Your task to perform on an android device: change keyboard looks Image 0: 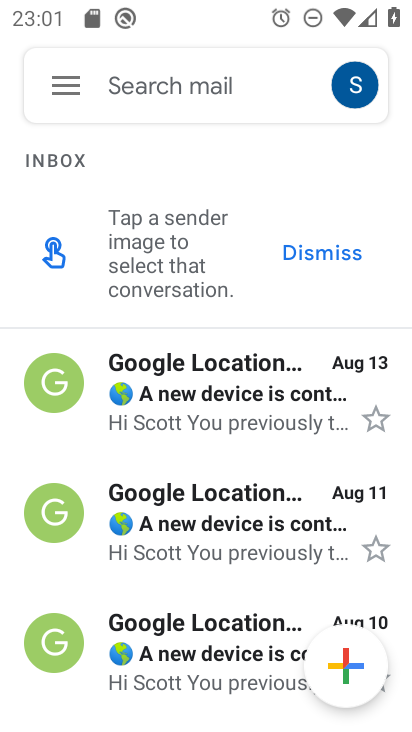
Step 0: press home button
Your task to perform on an android device: change keyboard looks Image 1: 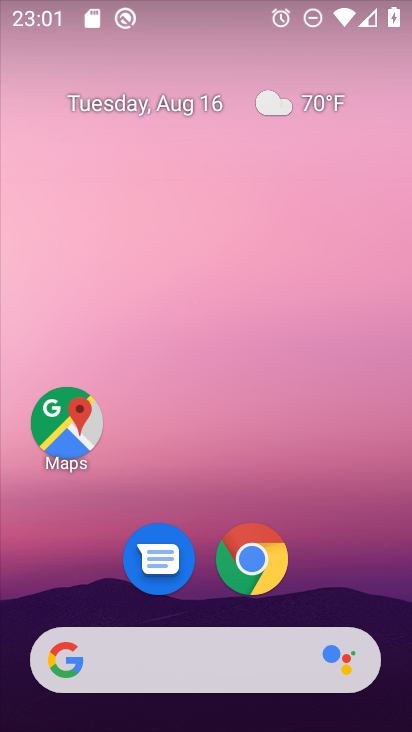
Step 1: drag from (200, 679) to (151, 130)
Your task to perform on an android device: change keyboard looks Image 2: 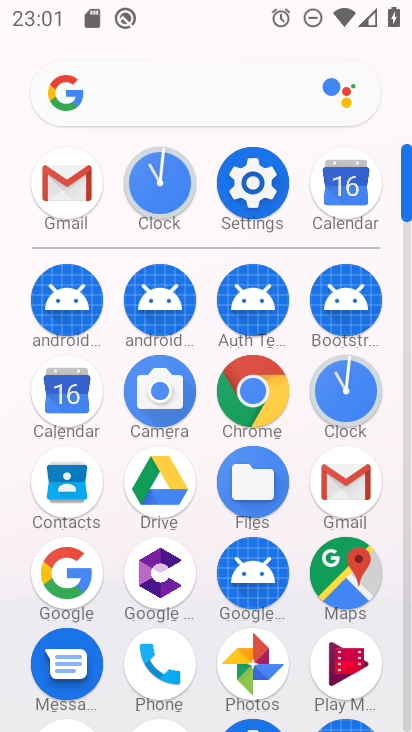
Step 2: click (250, 183)
Your task to perform on an android device: change keyboard looks Image 3: 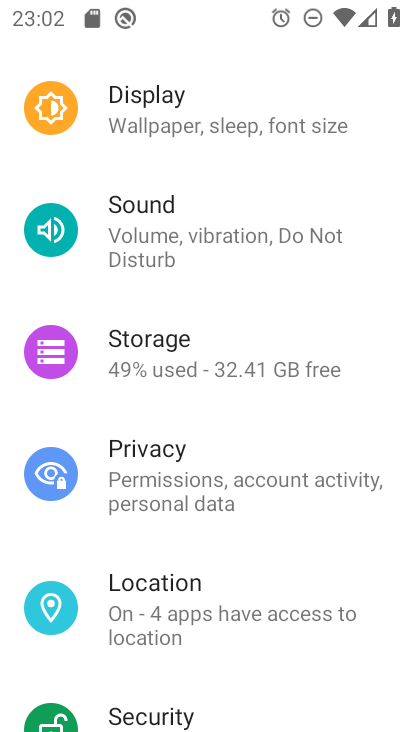
Step 3: drag from (153, 534) to (231, 425)
Your task to perform on an android device: change keyboard looks Image 4: 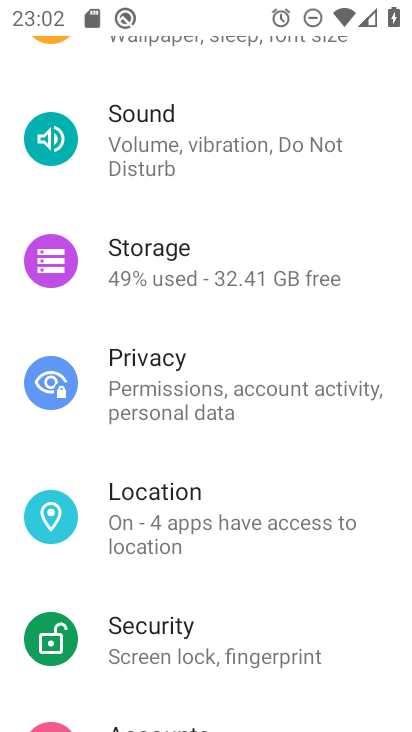
Step 4: drag from (176, 590) to (248, 479)
Your task to perform on an android device: change keyboard looks Image 5: 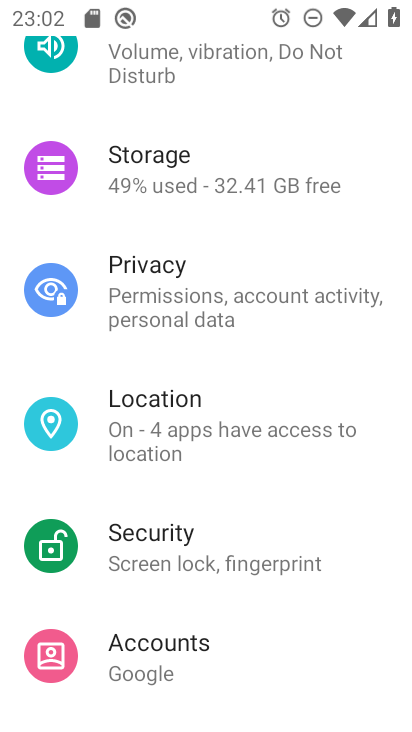
Step 5: drag from (151, 582) to (218, 462)
Your task to perform on an android device: change keyboard looks Image 6: 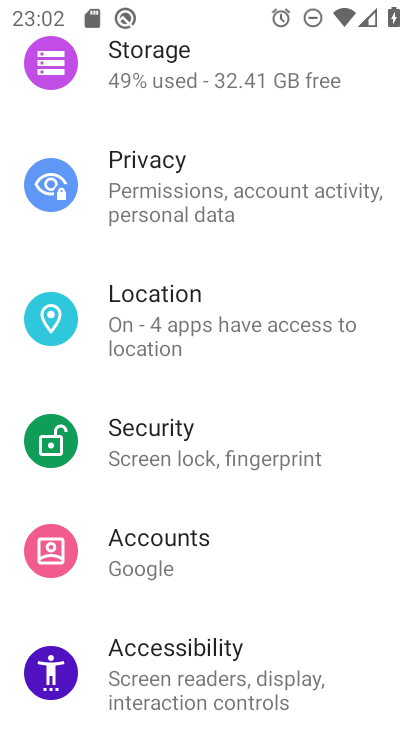
Step 6: drag from (161, 581) to (243, 472)
Your task to perform on an android device: change keyboard looks Image 7: 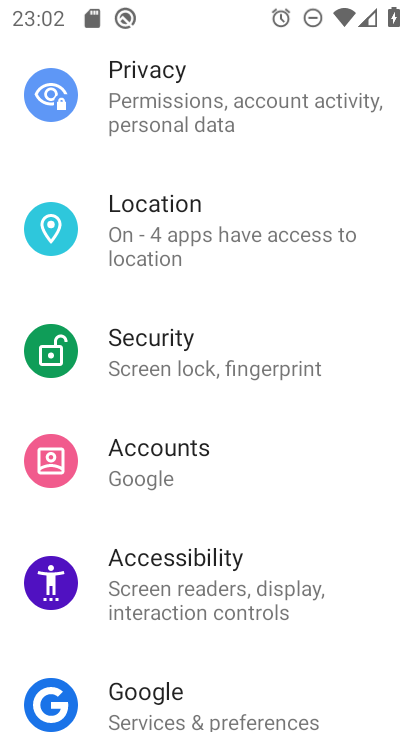
Step 7: drag from (183, 627) to (279, 494)
Your task to perform on an android device: change keyboard looks Image 8: 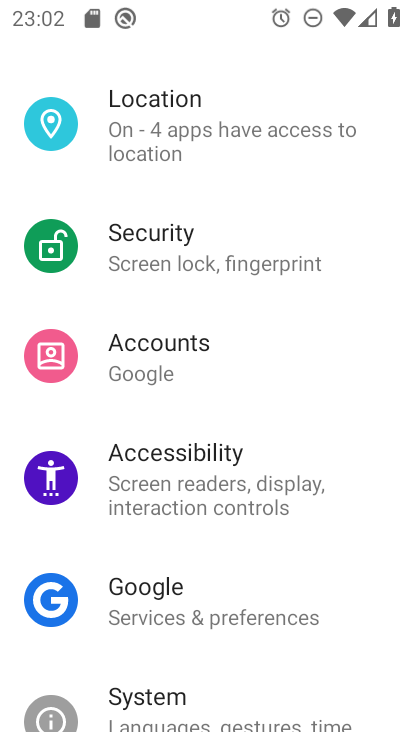
Step 8: drag from (192, 646) to (317, 494)
Your task to perform on an android device: change keyboard looks Image 9: 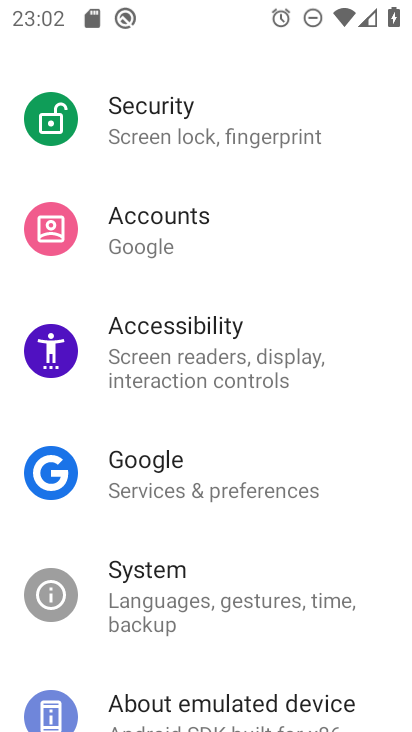
Step 9: click (148, 578)
Your task to perform on an android device: change keyboard looks Image 10: 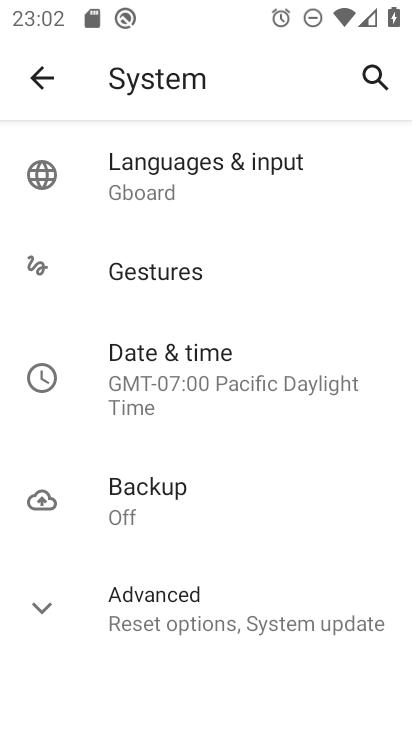
Step 10: click (150, 177)
Your task to perform on an android device: change keyboard looks Image 11: 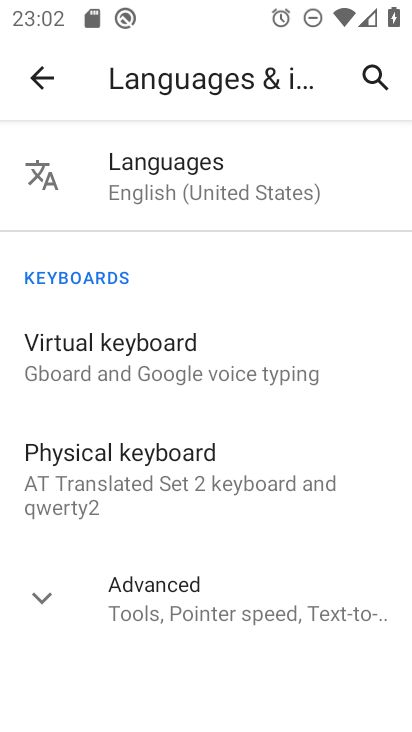
Step 11: click (131, 360)
Your task to perform on an android device: change keyboard looks Image 12: 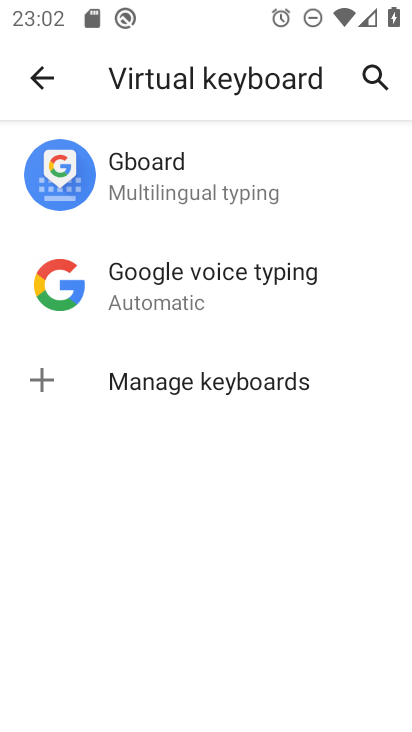
Step 12: click (149, 175)
Your task to perform on an android device: change keyboard looks Image 13: 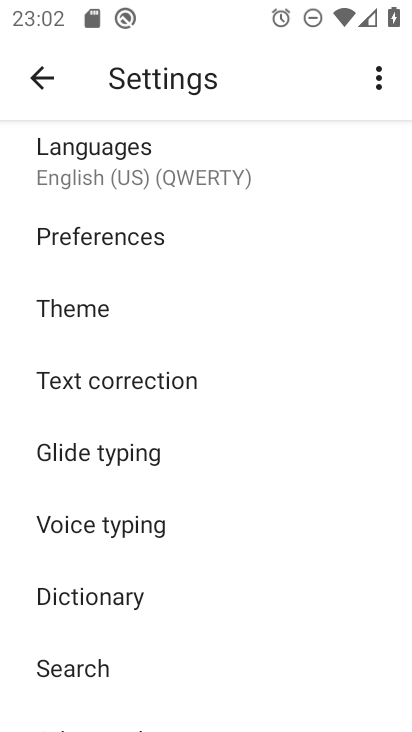
Step 13: click (97, 310)
Your task to perform on an android device: change keyboard looks Image 14: 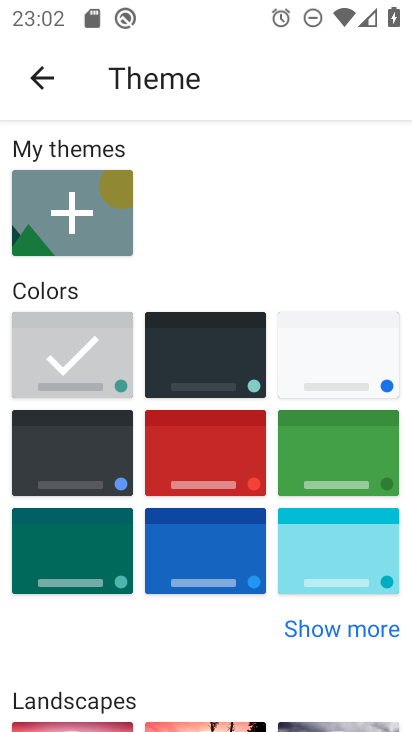
Step 14: click (185, 358)
Your task to perform on an android device: change keyboard looks Image 15: 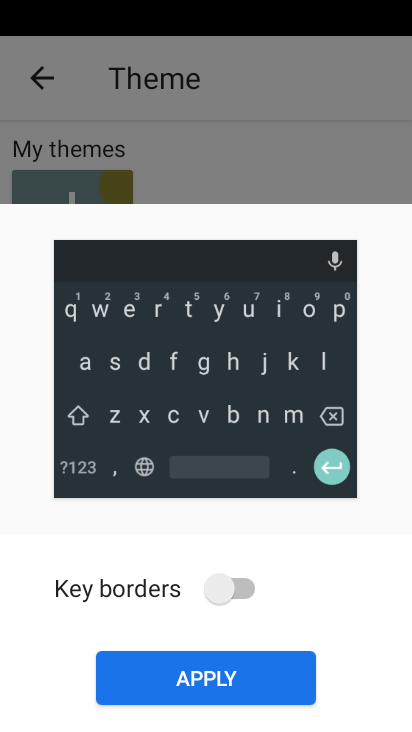
Step 15: click (251, 593)
Your task to perform on an android device: change keyboard looks Image 16: 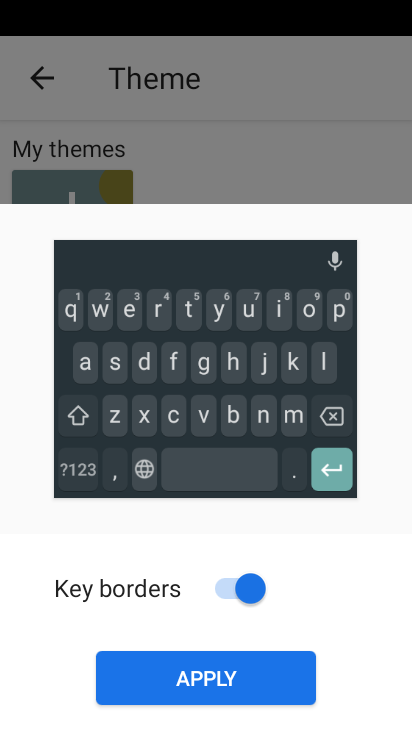
Step 16: click (218, 686)
Your task to perform on an android device: change keyboard looks Image 17: 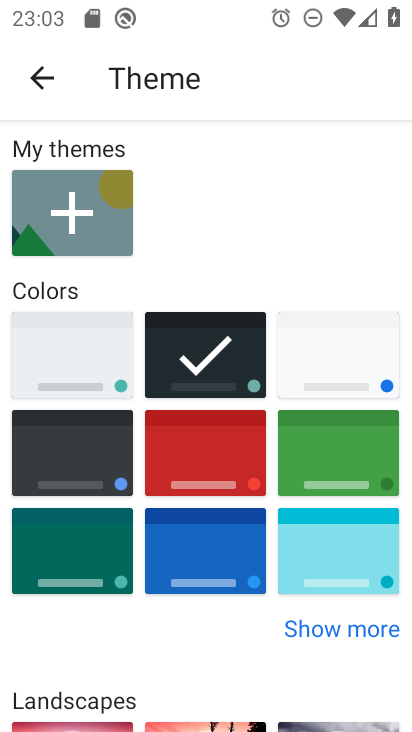
Step 17: task complete